Your task to perform on an android device: Toggle the flashlight Image 0: 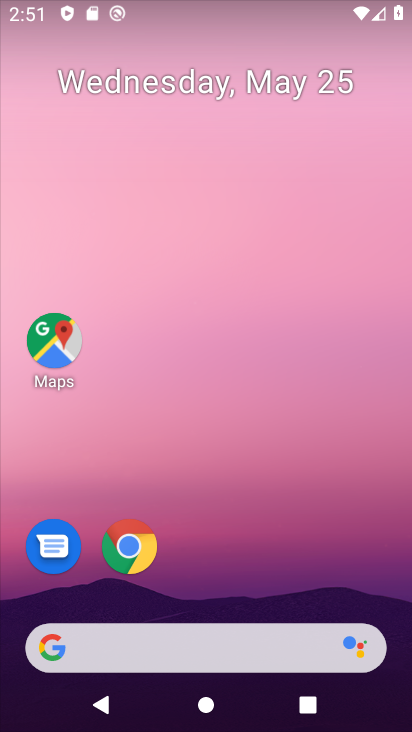
Step 0: drag from (218, 572) to (49, 46)
Your task to perform on an android device: Toggle the flashlight Image 1: 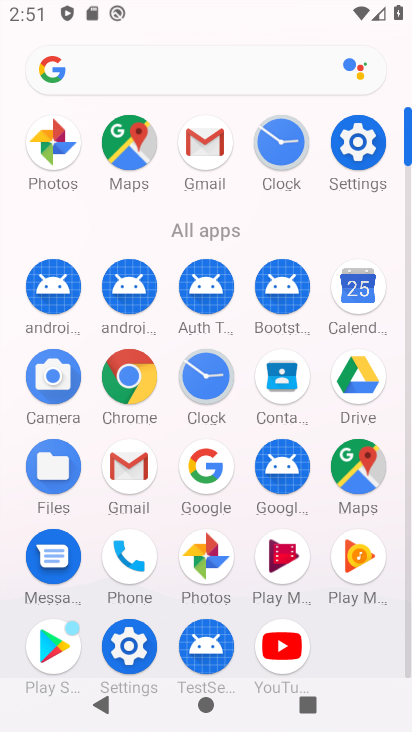
Step 1: click (363, 146)
Your task to perform on an android device: Toggle the flashlight Image 2: 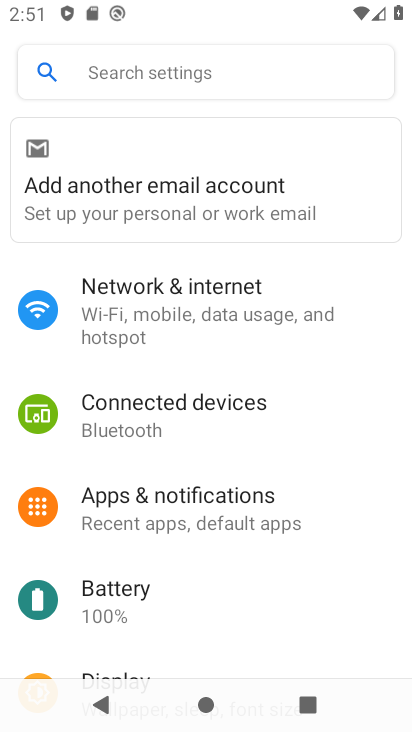
Step 2: click (200, 75)
Your task to perform on an android device: Toggle the flashlight Image 3: 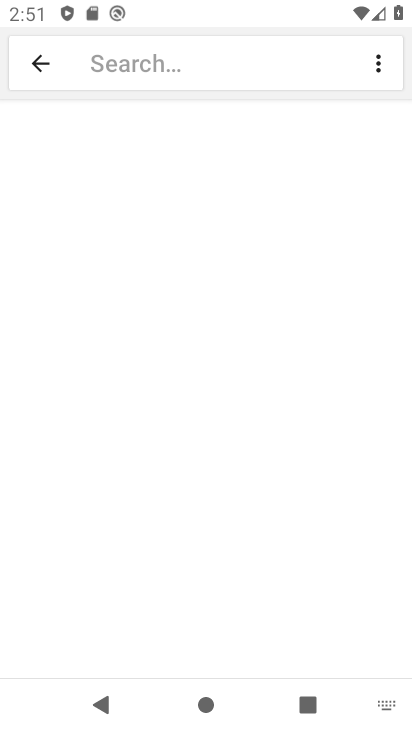
Step 3: click (200, 75)
Your task to perform on an android device: Toggle the flashlight Image 4: 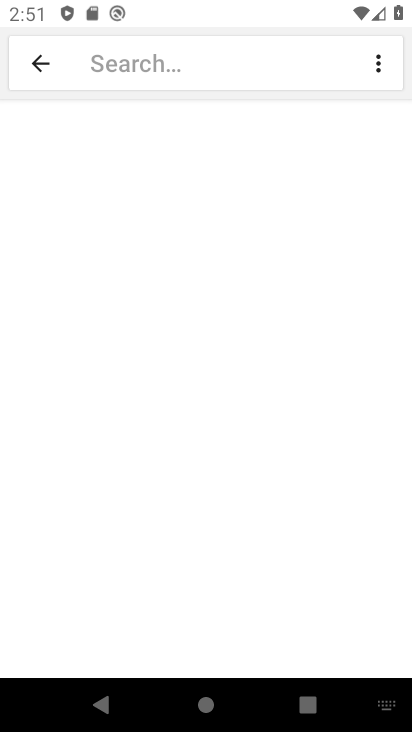
Step 4: type "flashlight"
Your task to perform on an android device: Toggle the flashlight Image 5: 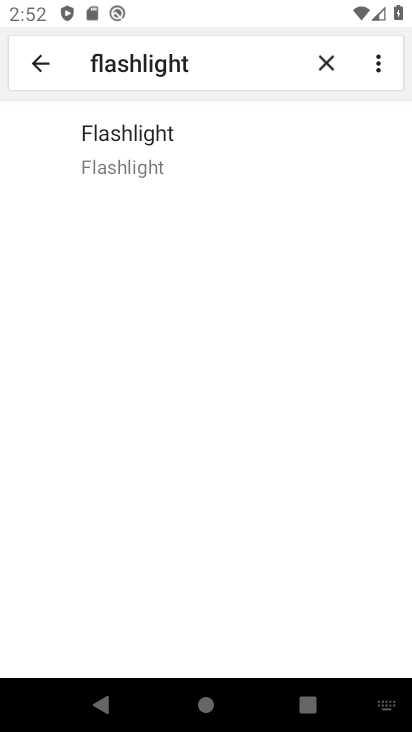
Step 5: click (162, 173)
Your task to perform on an android device: Toggle the flashlight Image 6: 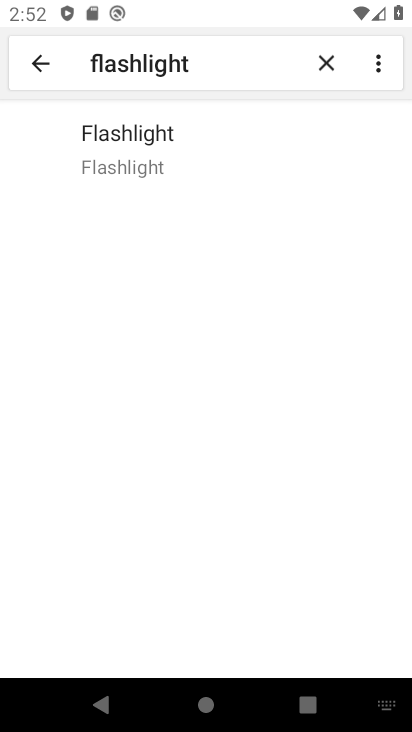
Step 6: click (123, 157)
Your task to perform on an android device: Toggle the flashlight Image 7: 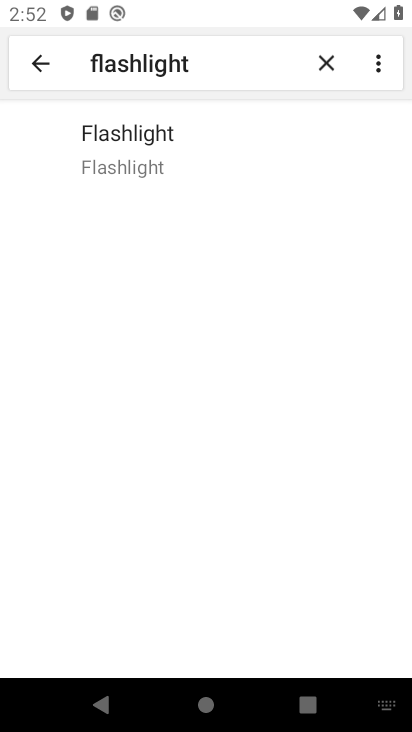
Step 7: click (123, 157)
Your task to perform on an android device: Toggle the flashlight Image 8: 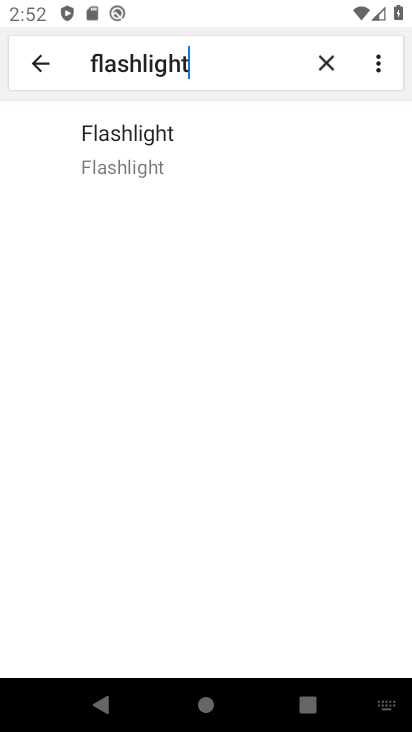
Step 8: task complete